Your task to perform on an android device: Open Google Chrome and open the bookmarks view Image 0: 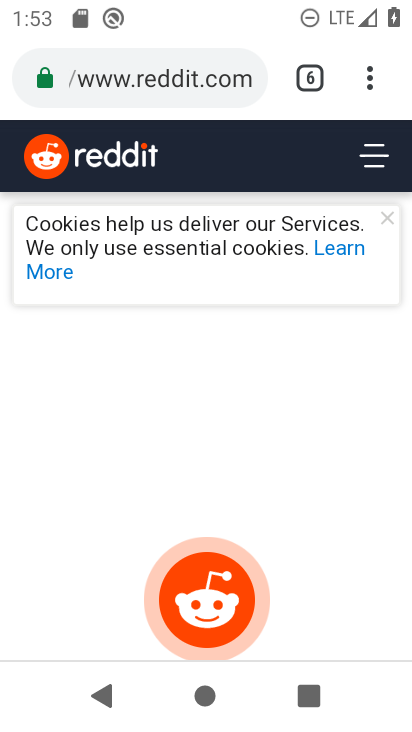
Step 0: press home button
Your task to perform on an android device: Open Google Chrome and open the bookmarks view Image 1: 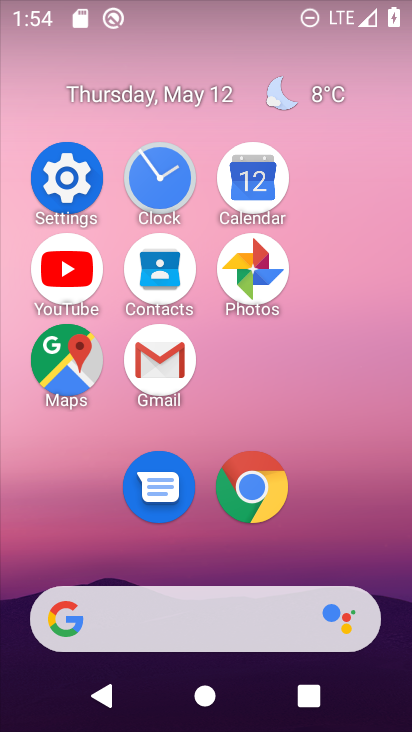
Step 1: click (275, 485)
Your task to perform on an android device: Open Google Chrome and open the bookmarks view Image 2: 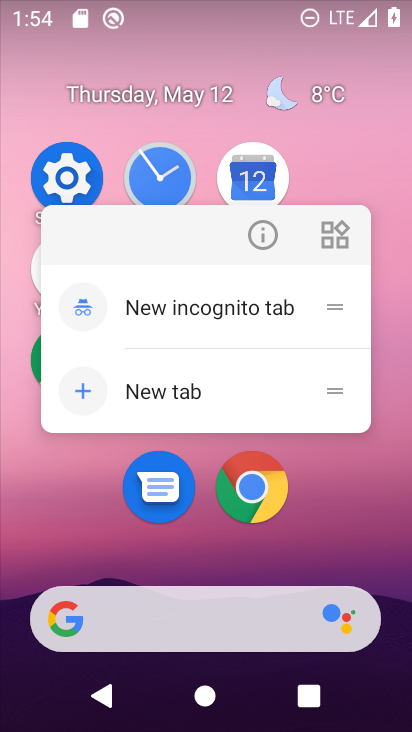
Step 2: click (251, 484)
Your task to perform on an android device: Open Google Chrome and open the bookmarks view Image 3: 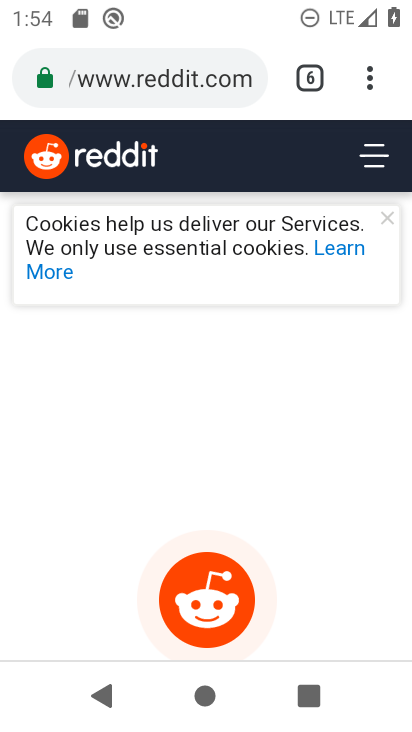
Step 3: click (380, 68)
Your task to perform on an android device: Open Google Chrome and open the bookmarks view Image 4: 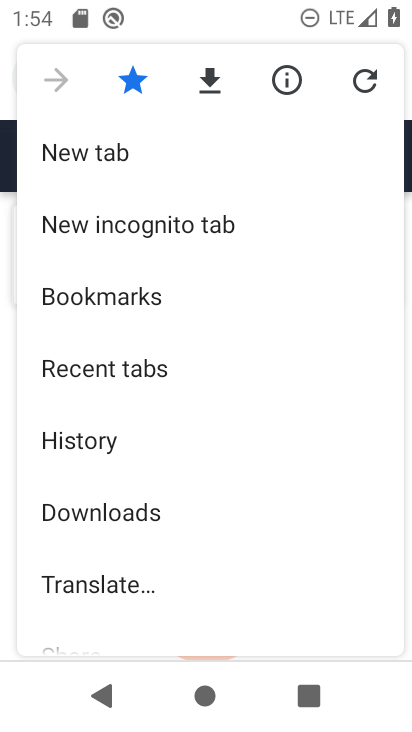
Step 4: click (150, 286)
Your task to perform on an android device: Open Google Chrome and open the bookmarks view Image 5: 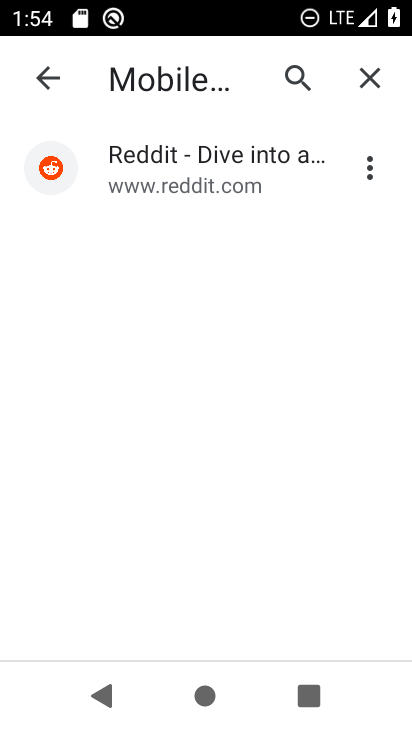
Step 5: task complete